Your task to perform on an android device: Open calendar and show me the third week of next month Image 0: 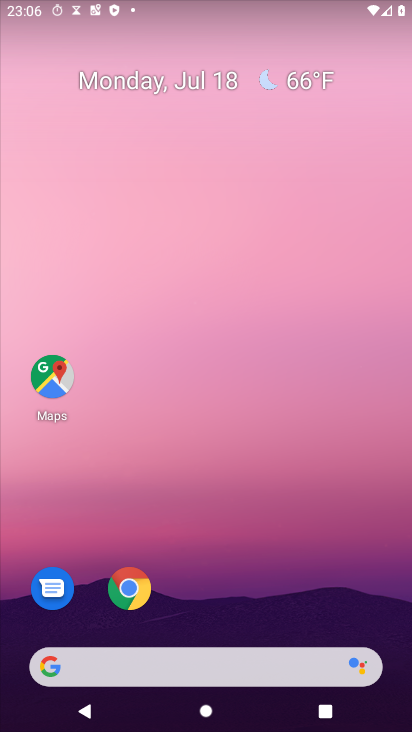
Step 0: press home button
Your task to perform on an android device: Open calendar and show me the third week of next month Image 1: 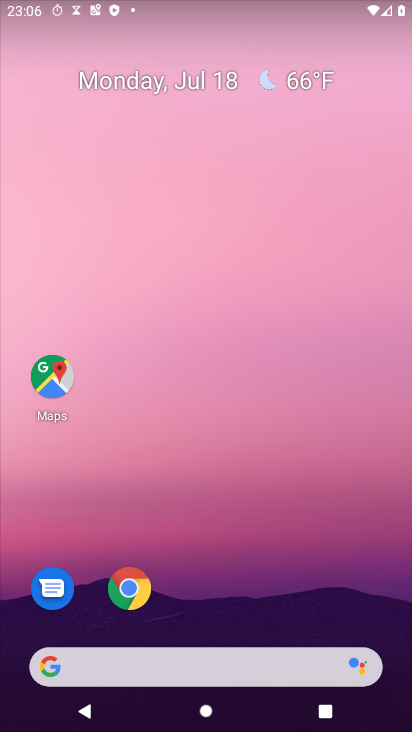
Step 1: drag from (183, 664) to (252, 176)
Your task to perform on an android device: Open calendar and show me the third week of next month Image 2: 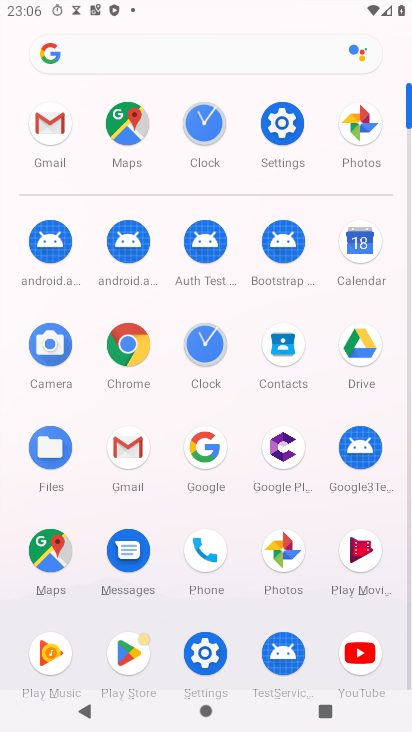
Step 2: click (359, 249)
Your task to perform on an android device: Open calendar and show me the third week of next month Image 3: 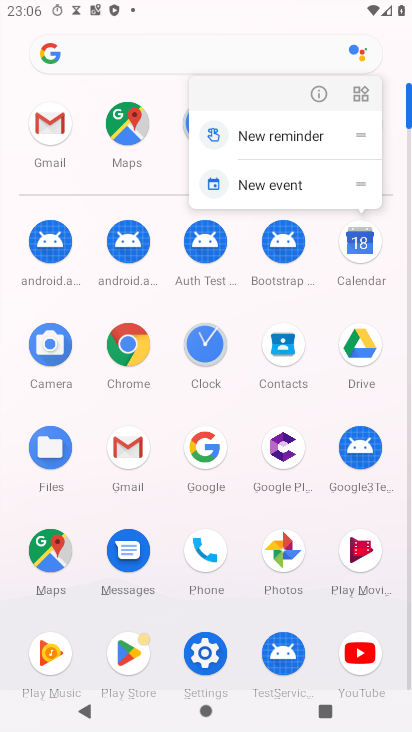
Step 3: click (358, 248)
Your task to perform on an android device: Open calendar and show me the third week of next month Image 4: 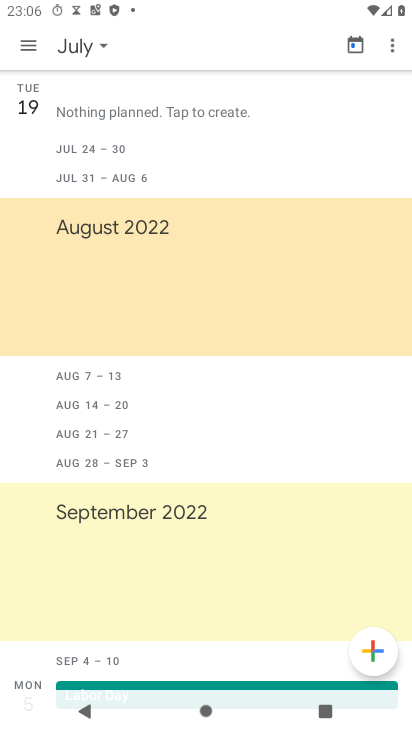
Step 4: click (86, 53)
Your task to perform on an android device: Open calendar and show me the third week of next month Image 5: 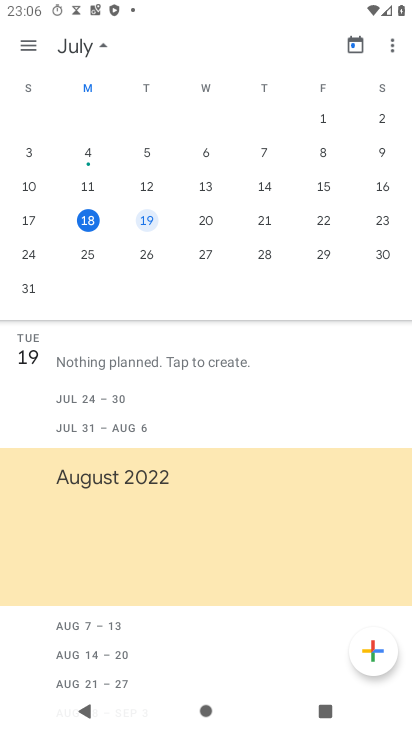
Step 5: drag from (363, 202) to (66, 176)
Your task to perform on an android device: Open calendar and show me the third week of next month Image 6: 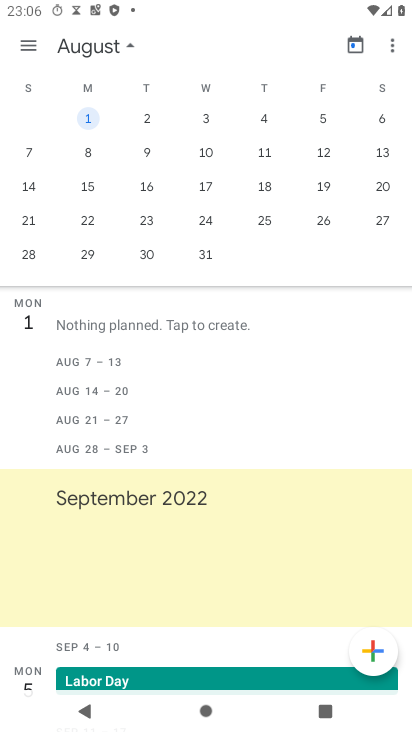
Step 6: click (34, 189)
Your task to perform on an android device: Open calendar and show me the third week of next month Image 7: 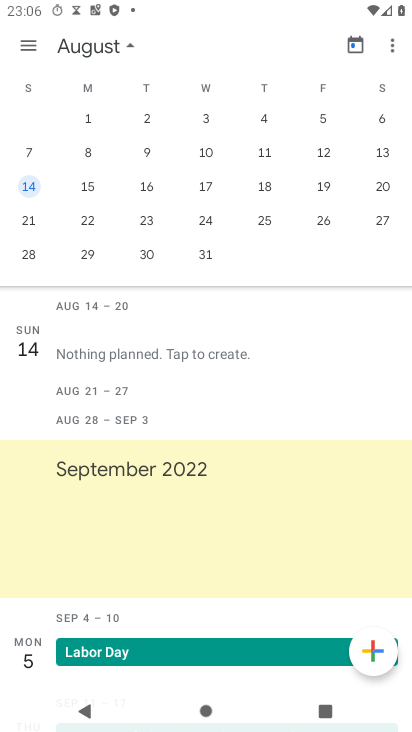
Step 7: click (37, 46)
Your task to perform on an android device: Open calendar and show me the third week of next month Image 8: 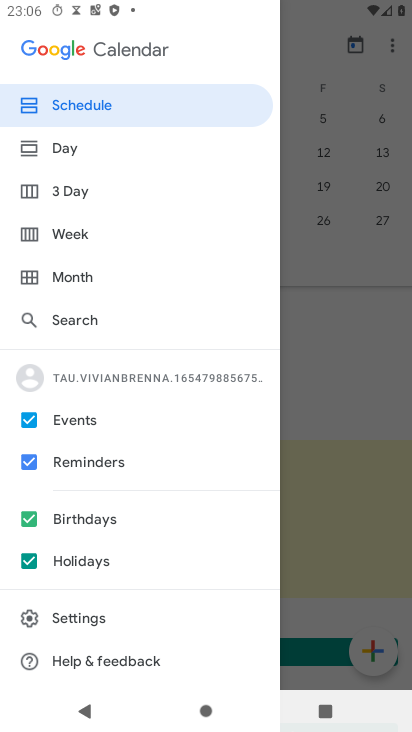
Step 8: click (79, 236)
Your task to perform on an android device: Open calendar and show me the third week of next month Image 9: 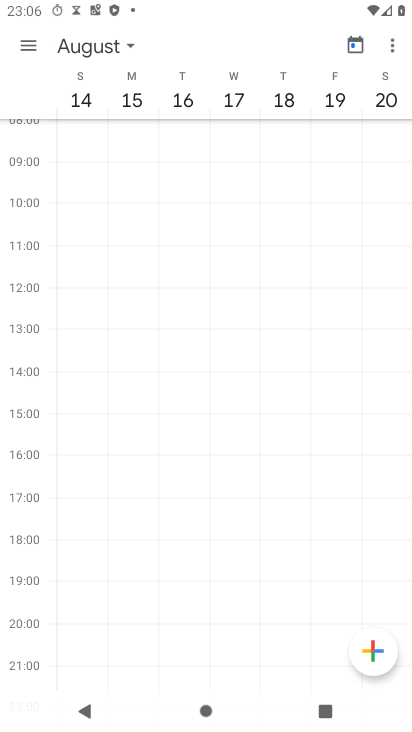
Step 9: task complete